Your task to perform on an android device: Check the weather Image 0: 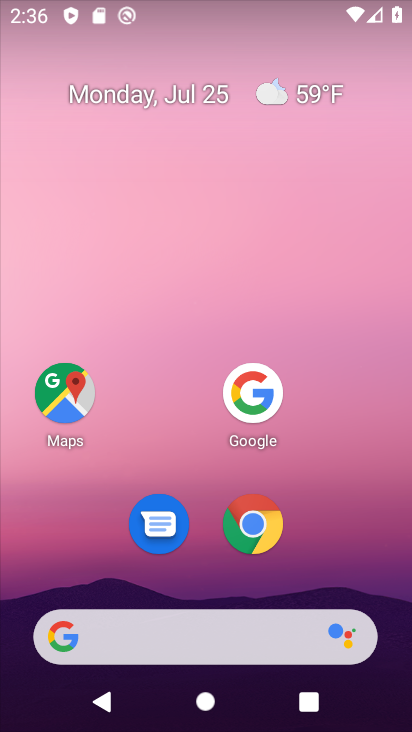
Step 0: press home button
Your task to perform on an android device: Check the weather Image 1: 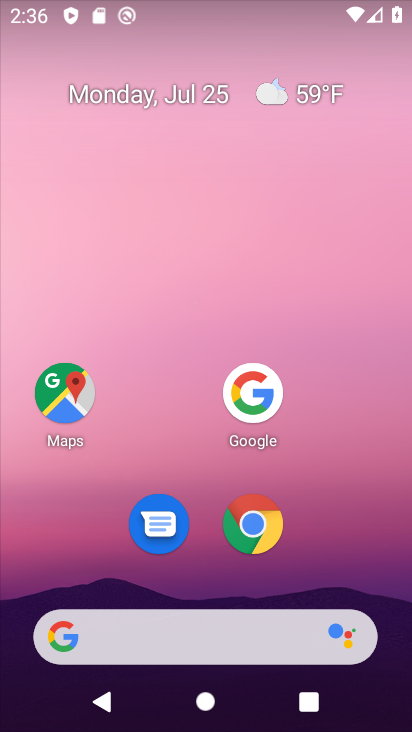
Step 1: click (111, 637)
Your task to perform on an android device: Check the weather Image 2: 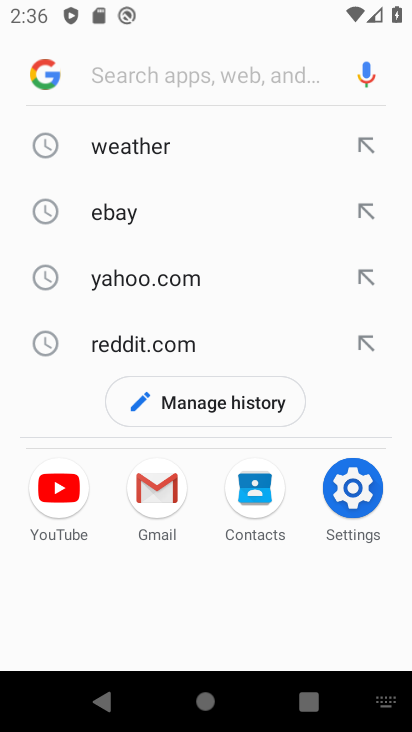
Step 2: click (145, 145)
Your task to perform on an android device: Check the weather Image 3: 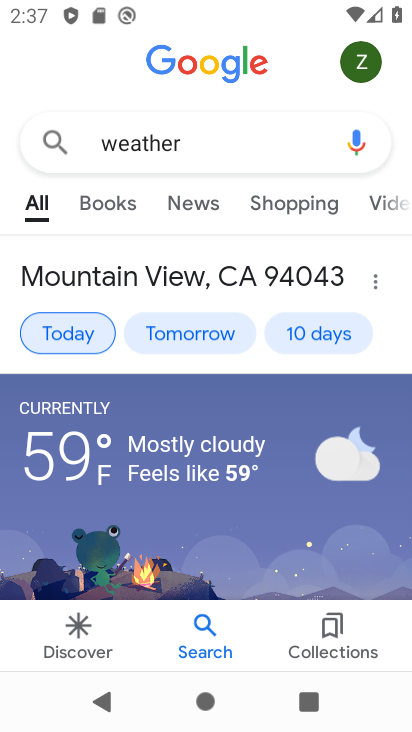
Step 3: task complete